Your task to perform on an android device: Open display settings Image 0: 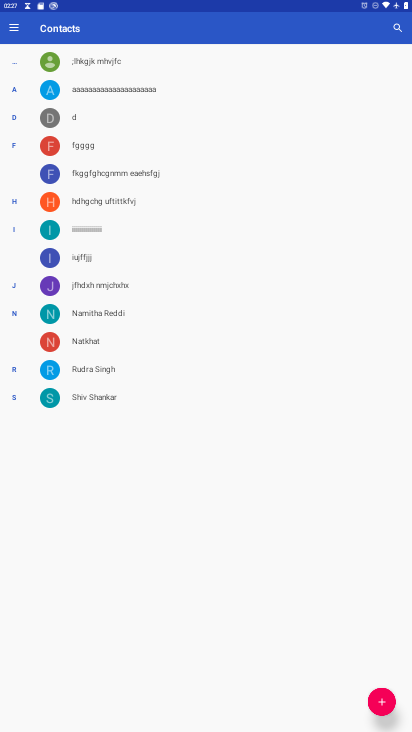
Step 0: press home button
Your task to perform on an android device: Open display settings Image 1: 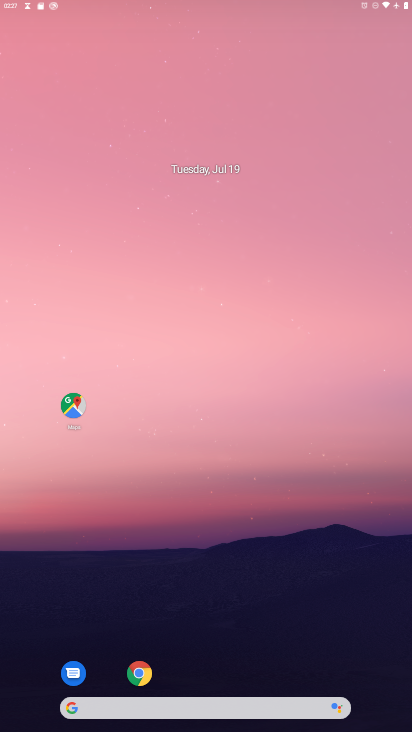
Step 1: drag from (233, 656) to (267, 195)
Your task to perform on an android device: Open display settings Image 2: 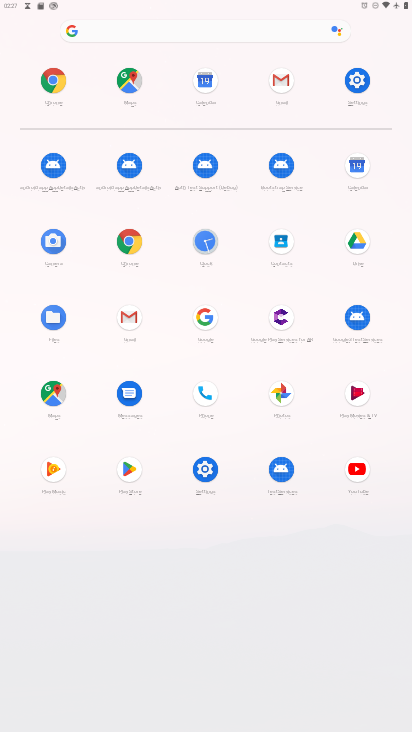
Step 2: click (360, 88)
Your task to perform on an android device: Open display settings Image 3: 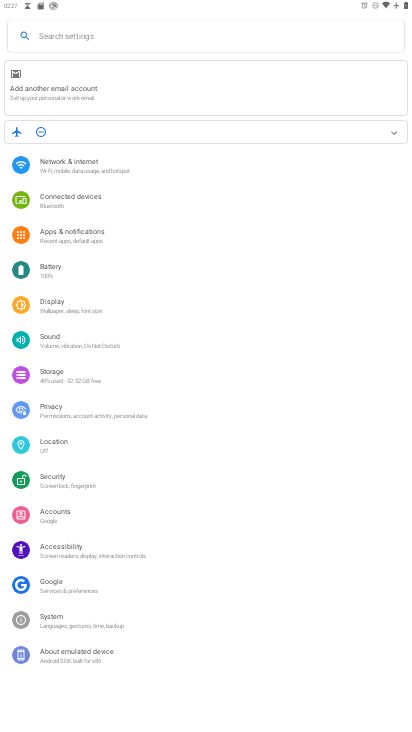
Step 3: click (66, 307)
Your task to perform on an android device: Open display settings Image 4: 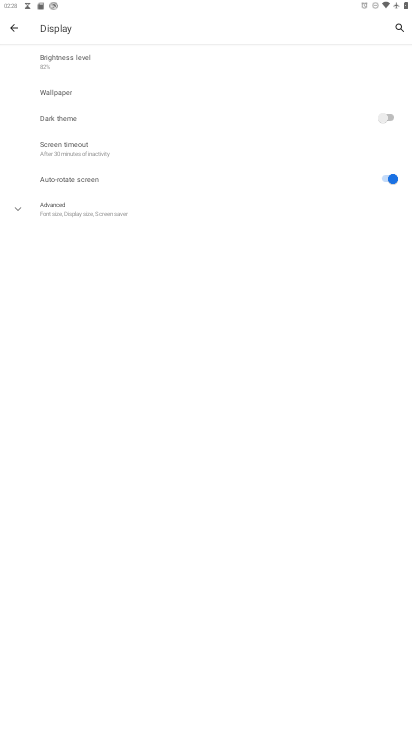
Step 4: task complete